Your task to perform on an android device: turn on sleep mode Image 0: 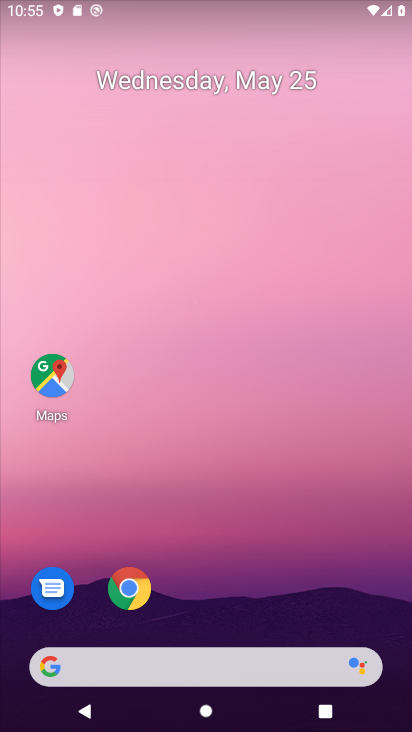
Step 0: drag from (254, 585) to (313, 166)
Your task to perform on an android device: turn on sleep mode Image 1: 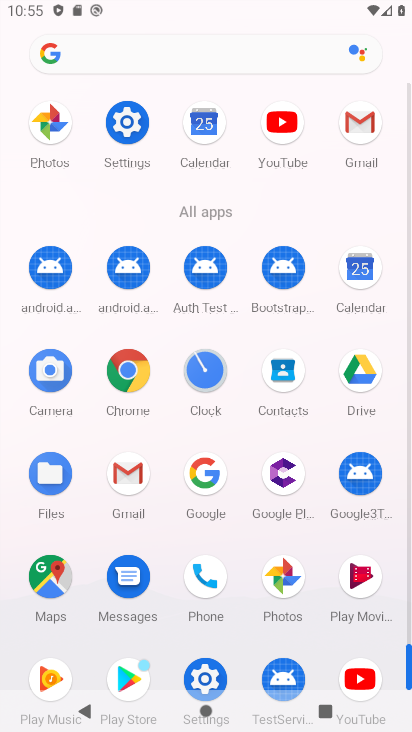
Step 1: click (127, 121)
Your task to perform on an android device: turn on sleep mode Image 2: 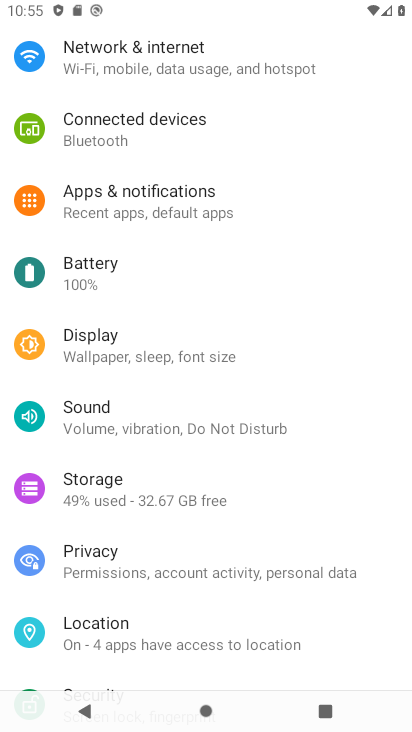
Step 2: click (172, 356)
Your task to perform on an android device: turn on sleep mode Image 3: 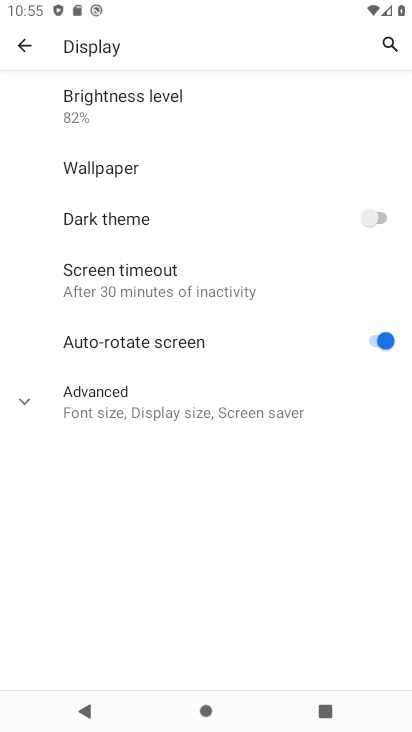
Step 3: click (174, 289)
Your task to perform on an android device: turn on sleep mode Image 4: 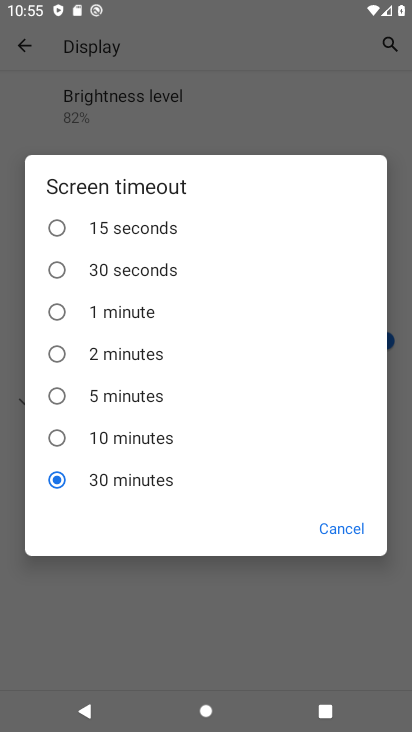
Step 4: click (340, 534)
Your task to perform on an android device: turn on sleep mode Image 5: 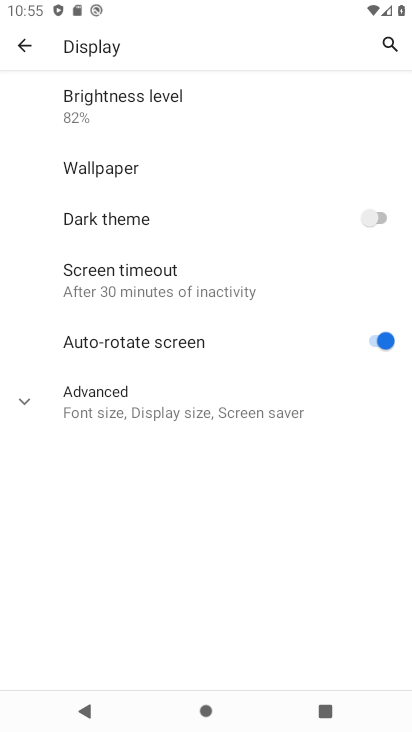
Step 5: click (191, 420)
Your task to perform on an android device: turn on sleep mode Image 6: 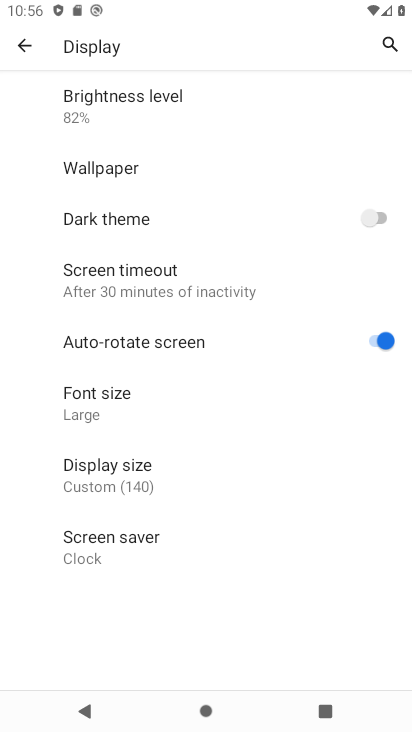
Step 6: click (133, 531)
Your task to perform on an android device: turn on sleep mode Image 7: 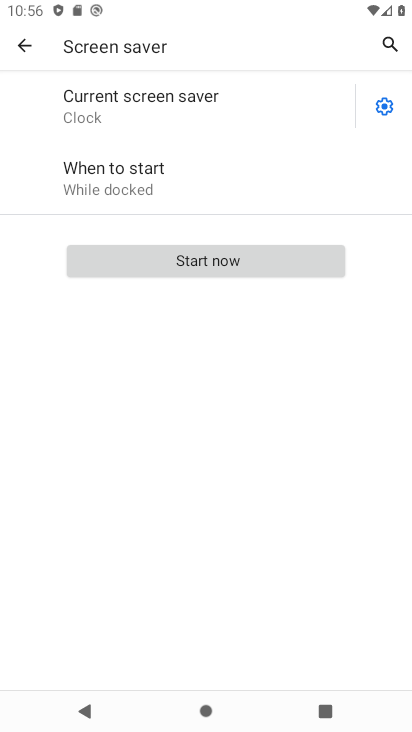
Step 7: click (388, 104)
Your task to perform on an android device: turn on sleep mode Image 8: 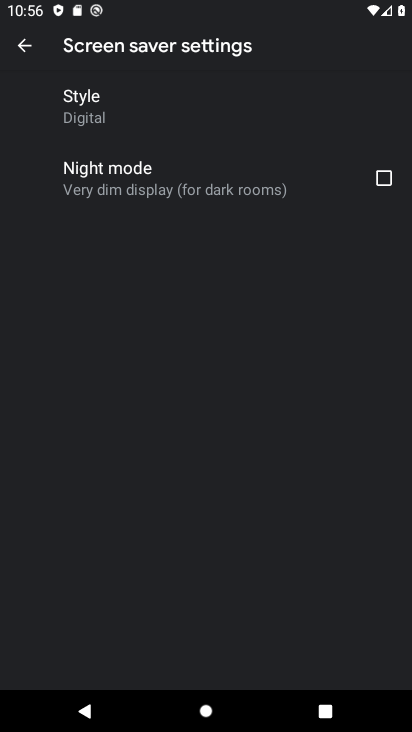
Step 8: click (376, 177)
Your task to perform on an android device: turn on sleep mode Image 9: 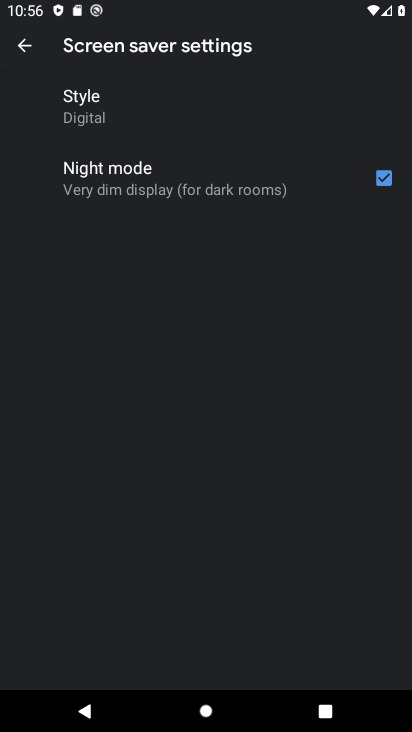
Step 9: click (35, 48)
Your task to perform on an android device: turn on sleep mode Image 10: 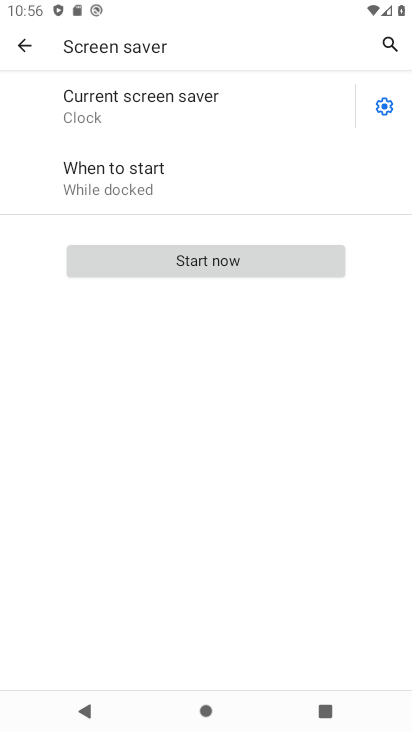
Step 10: task complete